Your task to perform on an android device: Is it going to rain tomorrow? Image 0: 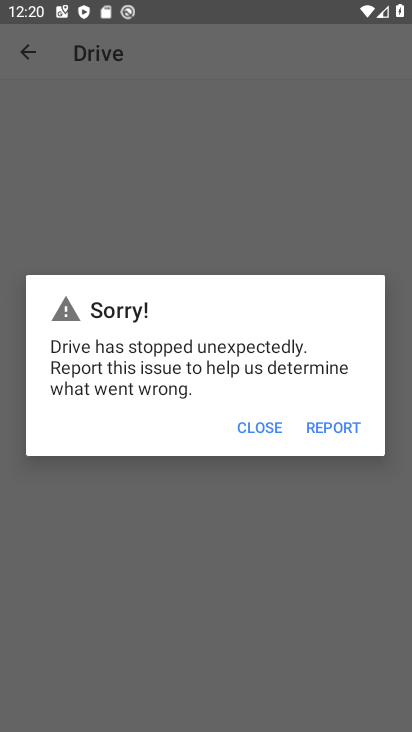
Step 0: press home button
Your task to perform on an android device: Is it going to rain tomorrow? Image 1: 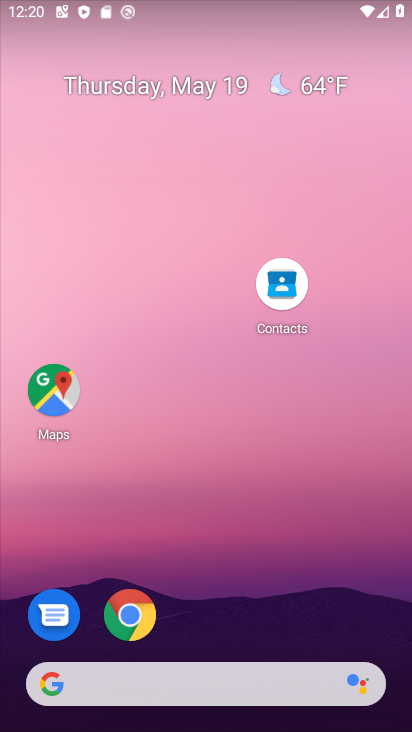
Step 1: drag from (239, 629) to (239, 306)
Your task to perform on an android device: Is it going to rain tomorrow? Image 2: 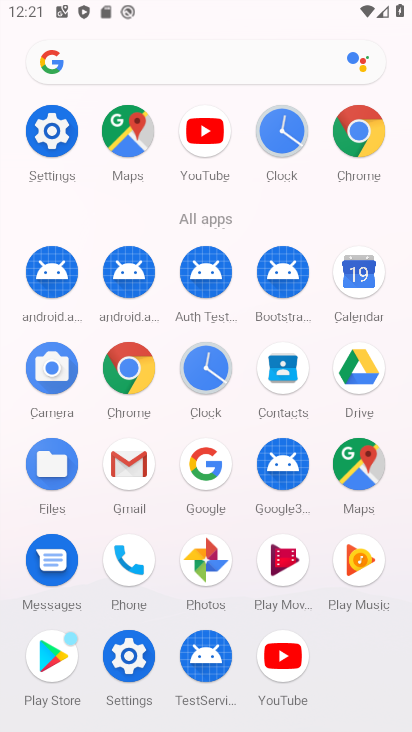
Step 2: click (205, 474)
Your task to perform on an android device: Is it going to rain tomorrow? Image 3: 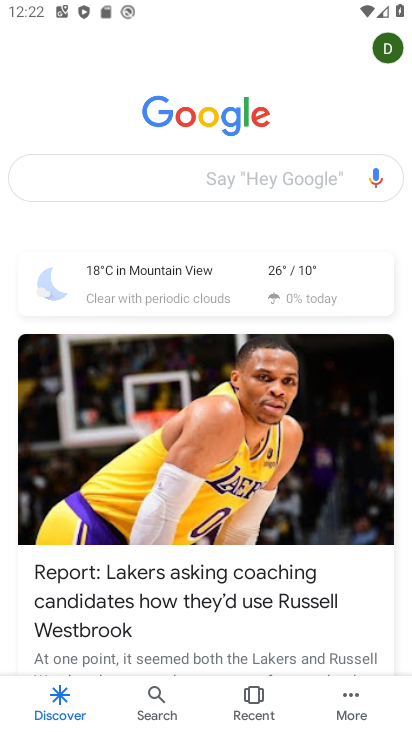
Step 3: click (275, 504)
Your task to perform on an android device: Is it going to rain tomorrow? Image 4: 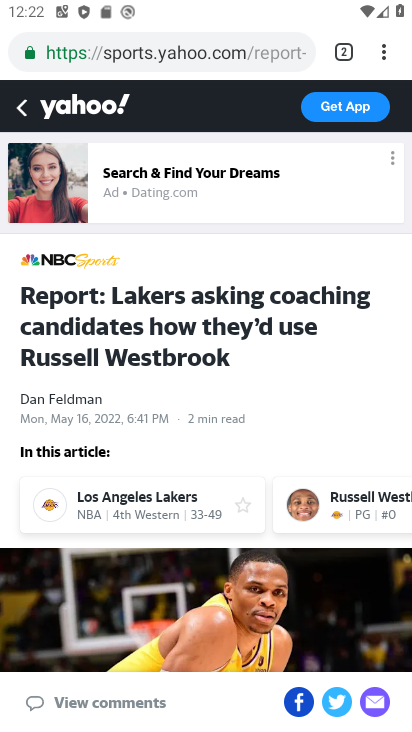
Step 4: press back button
Your task to perform on an android device: Is it going to rain tomorrow? Image 5: 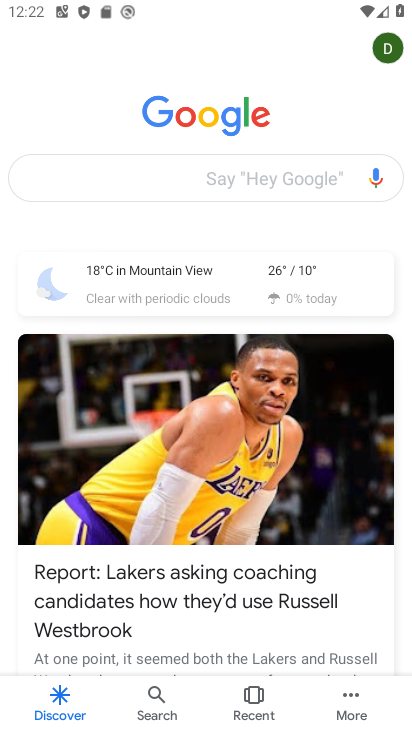
Step 5: click (309, 187)
Your task to perform on an android device: Is it going to rain tomorrow? Image 6: 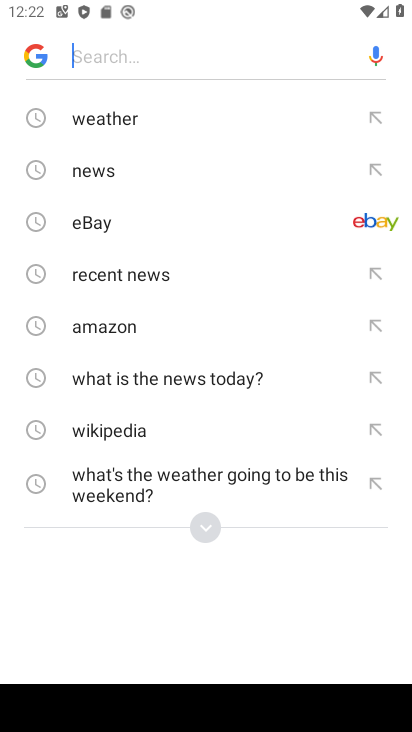
Step 6: click (206, 111)
Your task to perform on an android device: Is it going to rain tomorrow? Image 7: 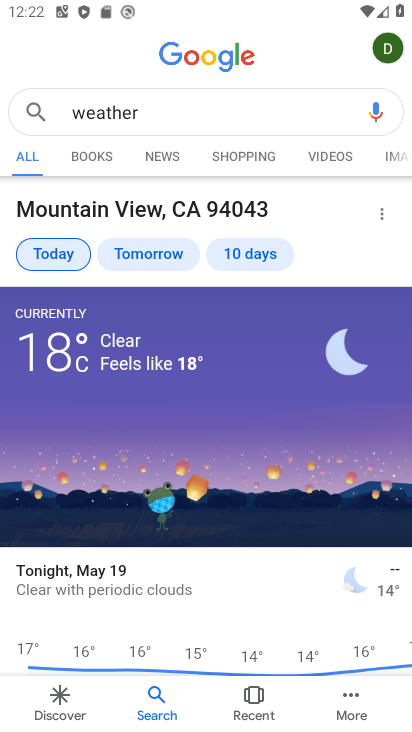
Step 7: task complete